Your task to perform on an android device: When is my next meeting? Image 0: 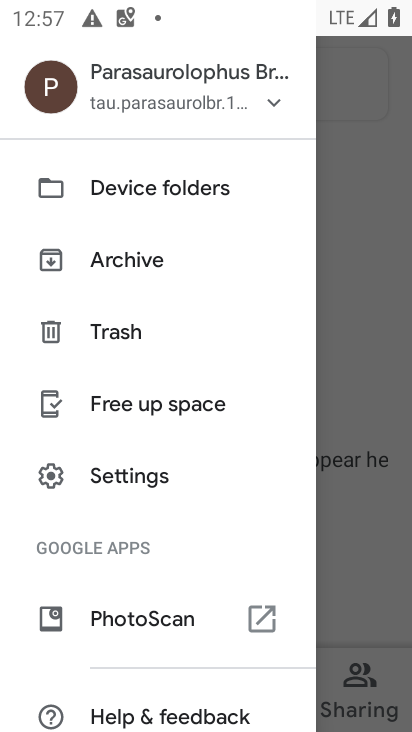
Step 0: press home button
Your task to perform on an android device: When is my next meeting? Image 1: 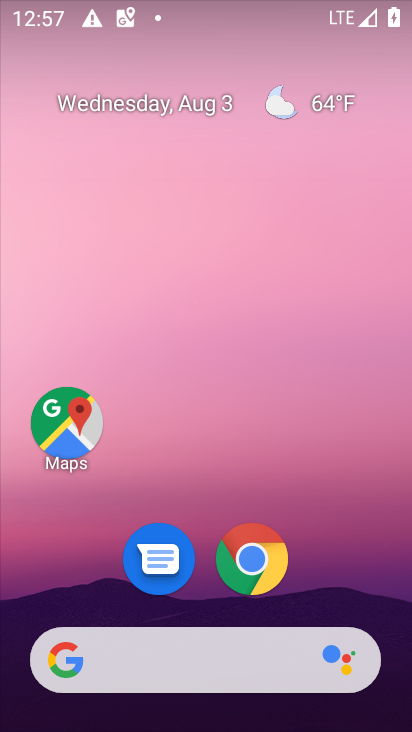
Step 1: drag from (201, 589) to (211, 71)
Your task to perform on an android device: When is my next meeting? Image 2: 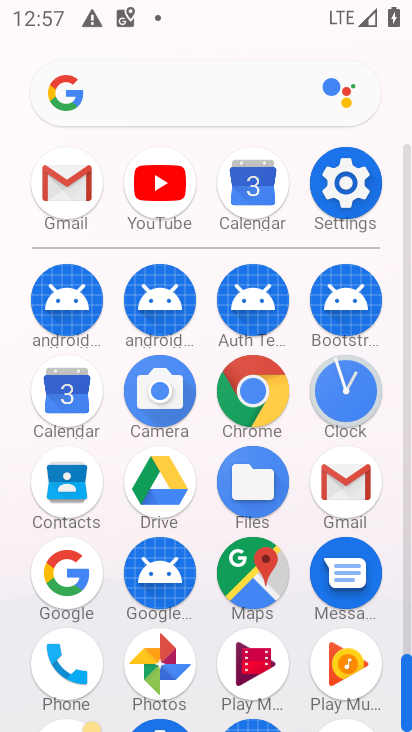
Step 2: click (256, 192)
Your task to perform on an android device: When is my next meeting? Image 3: 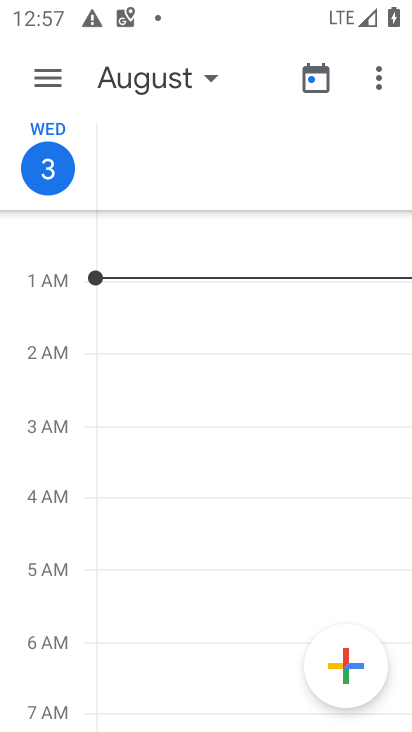
Step 3: click (212, 79)
Your task to perform on an android device: When is my next meeting? Image 4: 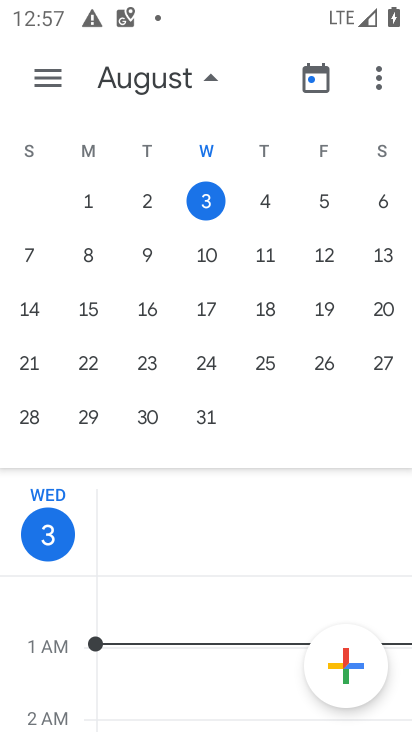
Step 4: click (265, 198)
Your task to perform on an android device: When is my next meeting? Image 5: 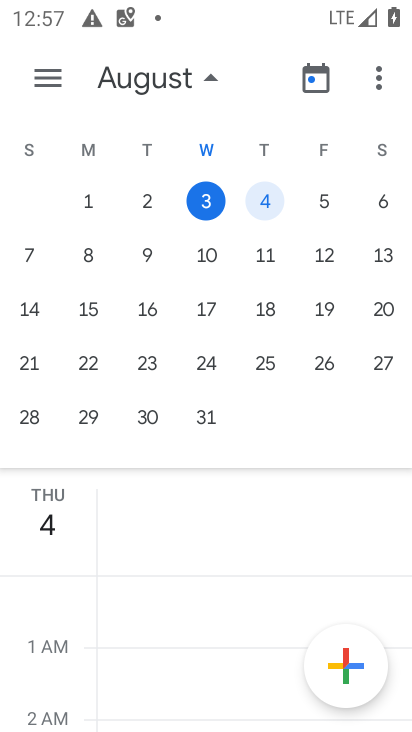
Step 5: click (265, 198)
Your task to perform on an android device: When is my next meeting? Image 6: 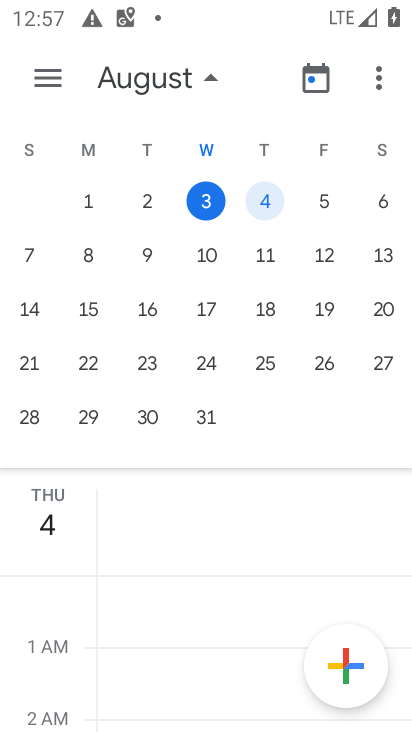
Step 6: click (265, 198)
Your task to perform on an android device: When is my next meeting? Image 7: 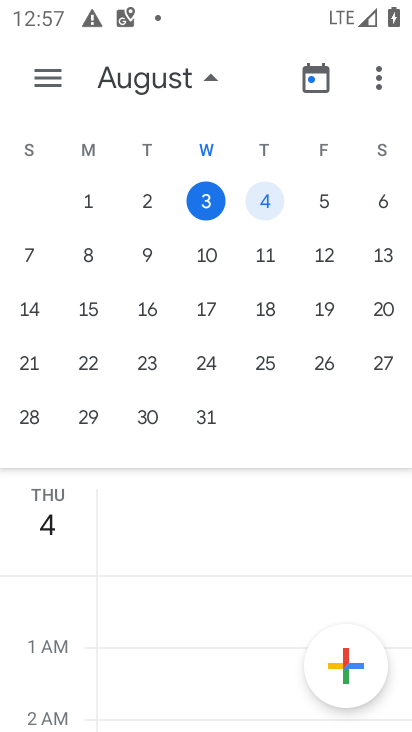
Step 7: click (265, 198)
Your task to perform on an android device: When is my next meeting? Image 8: 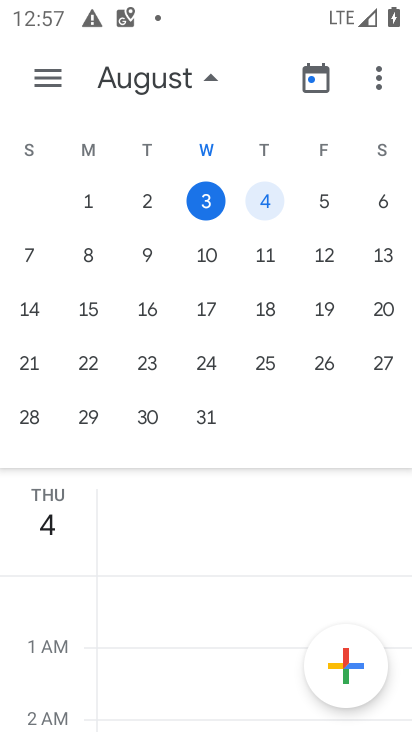
Step 8: click (265, 198)
Your task to perform on an android device: When is my next meeting? Image 9: 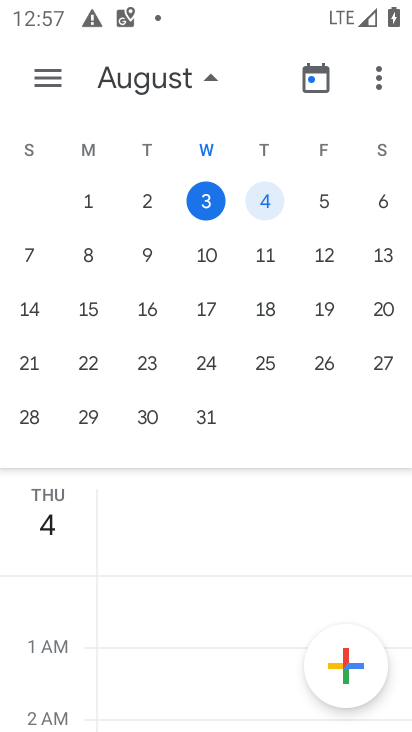
Step 9: task complete